Your task to perform on an android device: Play the last video I watched on Youtube Image 0: 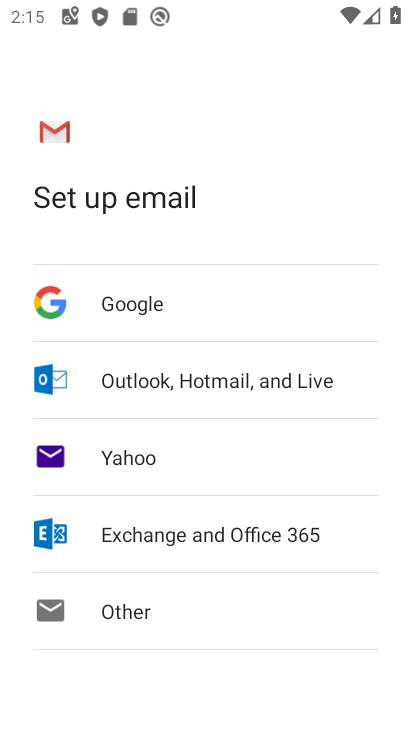
Step 0: press home button
Your task to perform on an android device: Play the last video I watched on Youtube Image 1: 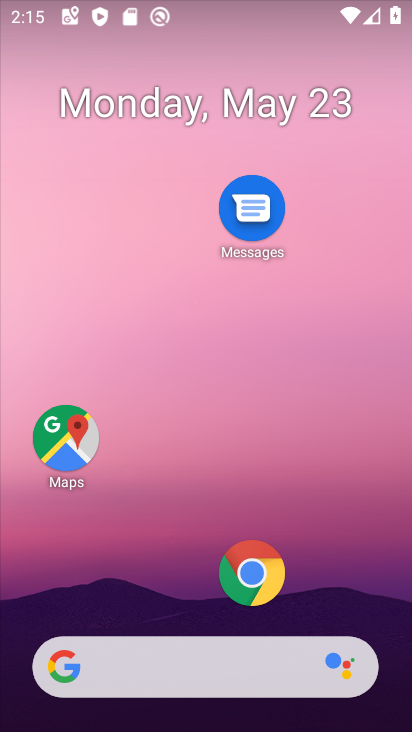
Step 1: drag from (315, 595) to (300, 2)
Your task to perform on an android device: Play the last video I watched on Youtube Image 2: 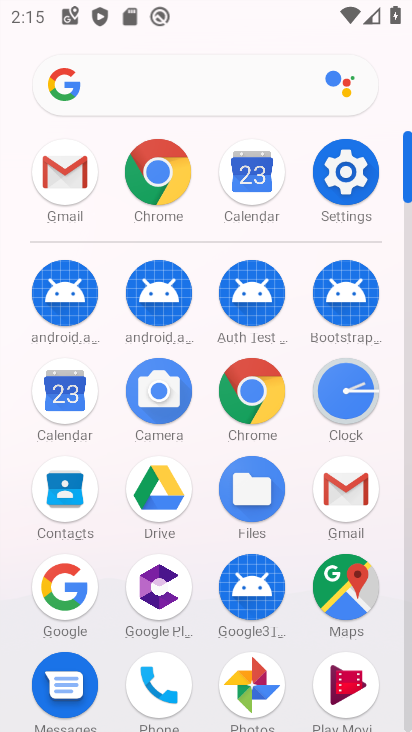
Step 2: drag from (309, 668) to (296, 109)
Your task to perform on an android device: Play the last video I watched on Youtube Image 3: 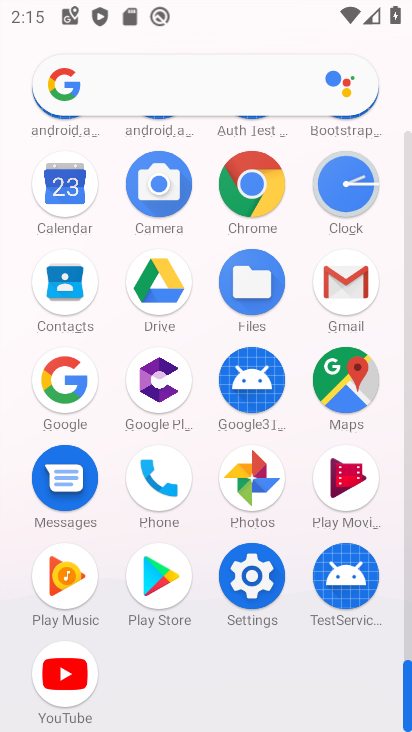
Step 3: click (66, 653)
Your task to perform on an android device: Play the last video I watched on Youtube Image 4: 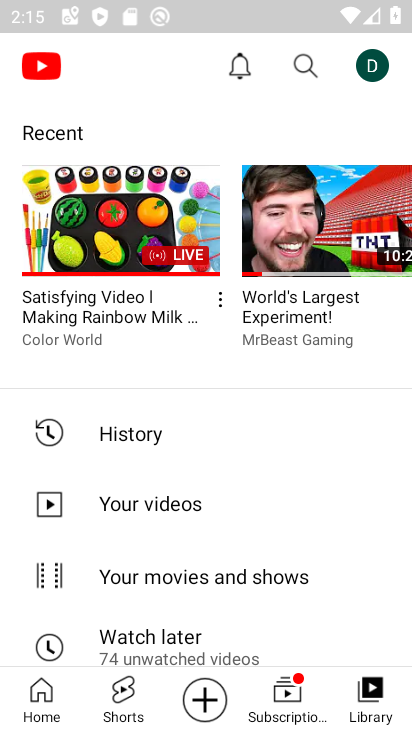
Step 4: click (289, 708)
Your task to perform on an android device: Play the last video I watched on Youtube Image 5: 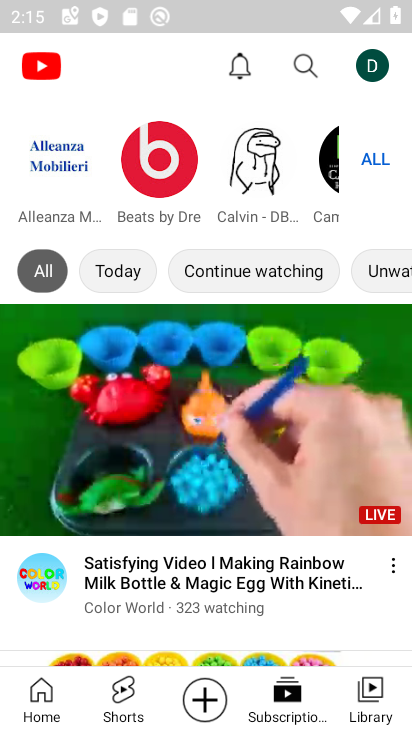
Step 5: click (365, 684)
Your task to perform on an android device: Play the last video I watched on Youtube Image 6: 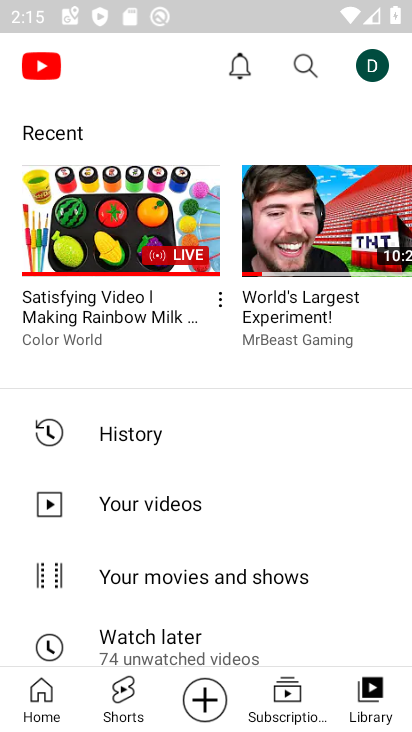
Step 6: click (106, 214)
Your task to perform on an android device: Play the last video I watched on Youtube Image 7: 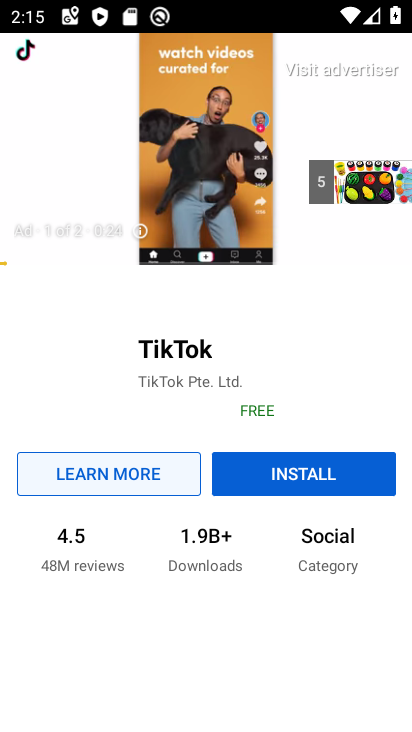
Step 7: click (217, 147)
Your task to perform on an android device: Play the last video I watched on Youtube Image 8: 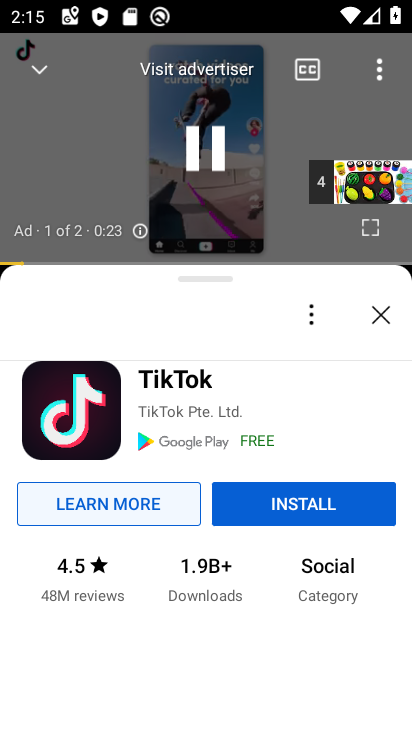
Step 8: click (385, 296)
Your task to perform on an android device: Play the last video I watched on Youtube Image 9: 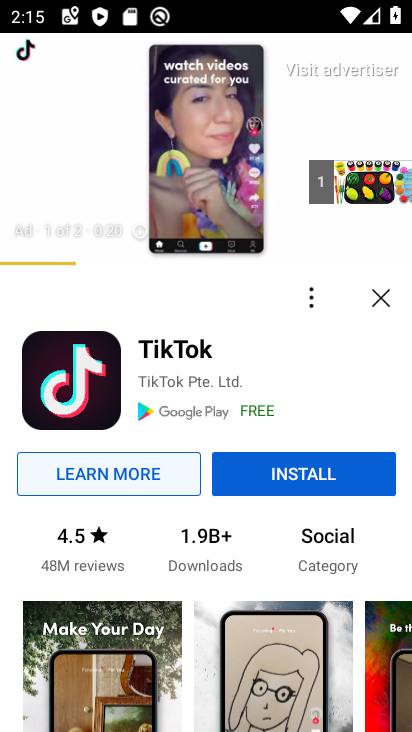
Step 9: click (385, 296)
Your task to perform on an android device: Play the last video I watched on Youtube Image 10: 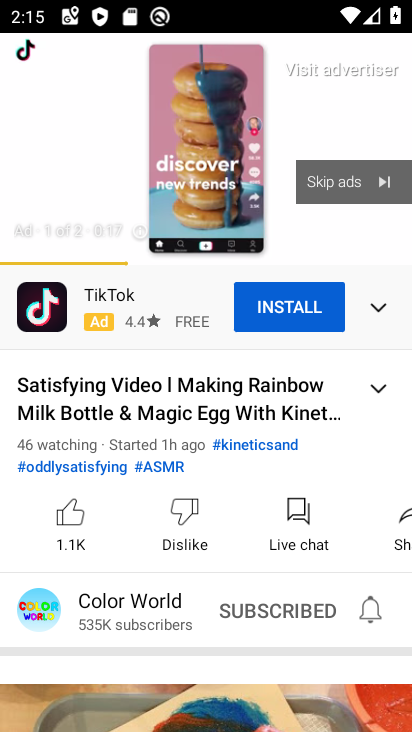
Step 10: click (249, 161)
Your task to perform on an android device: Play the last video I watched on Youtube Image 11: 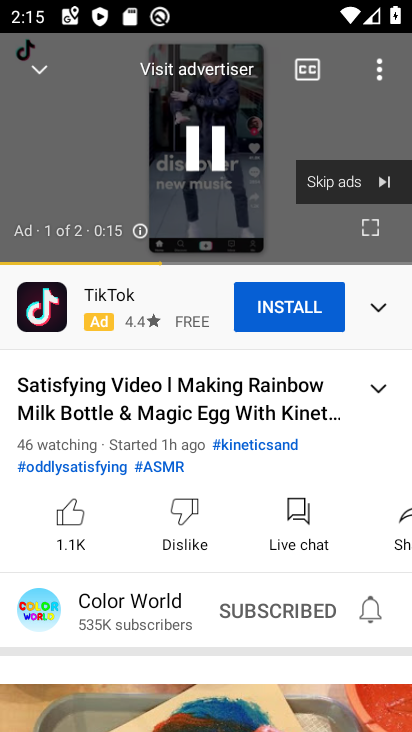
Step 11: click (354, 184)
Your task to perform on an android device: Play the last video I watched on Youtube Image 12: 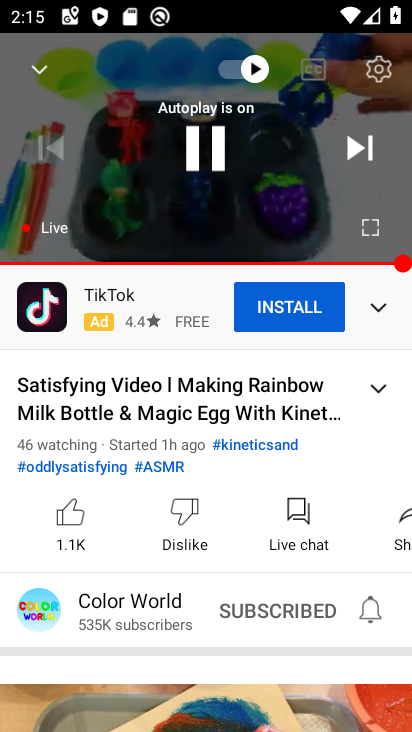
Step 12: task complete